Your task to perform on an android device: see tabs open on other devices in the chrome app Image 0: 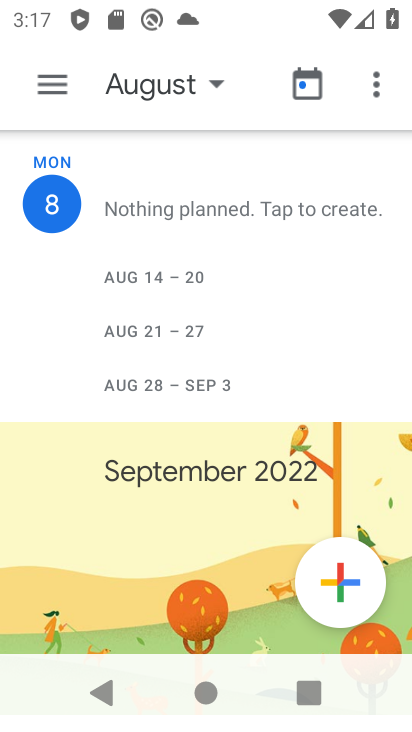
Step 0: press home button
Your task to perform on an android device: see tabs open on other devices in the chrome app Image 1: 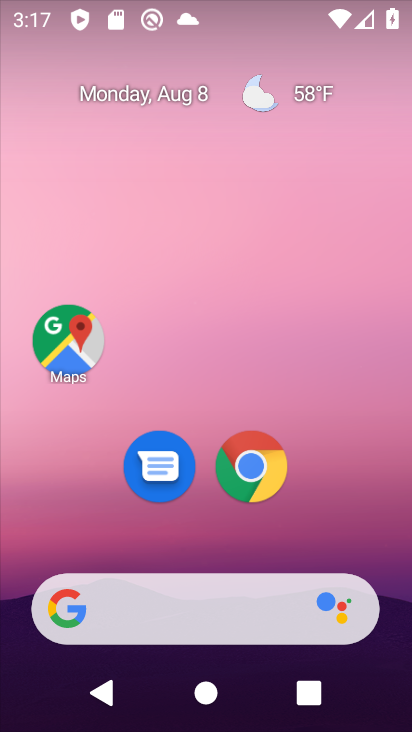
Step 1: drag from (219, 414) to (206, 247)
Your task to perform on an android device: see tabs open on other devices in the chrome app Image 2: 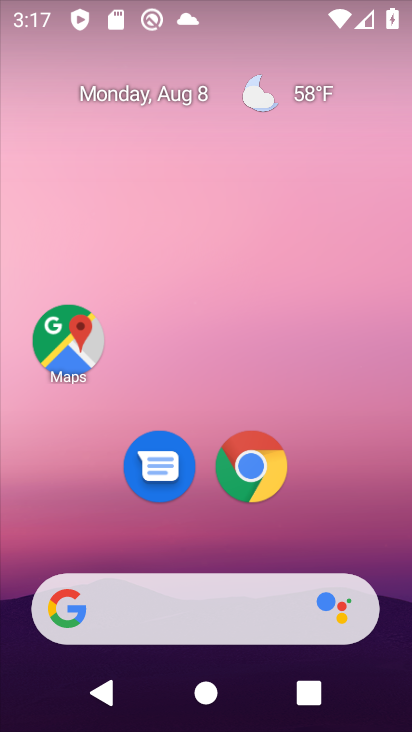
Step 2: drag from (214, 535) to (218, 203)
Your task to perform on an android device: see tabs open on other devices in the chrome app Image 3: 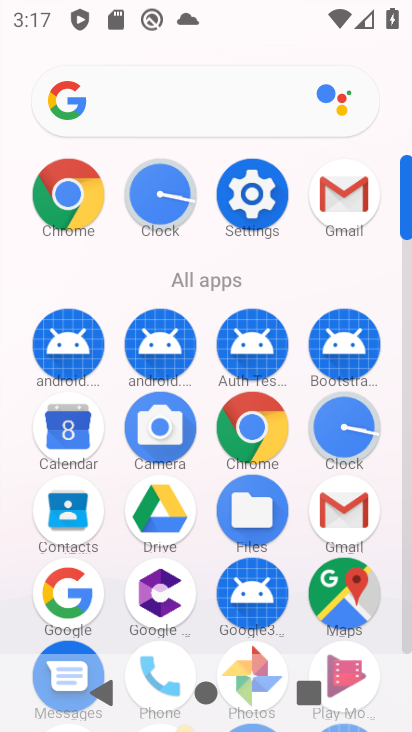
Step 3: click (250, 427)
Your task to perform on an android device: see tabs open on other devices in the chrome app Image 4: 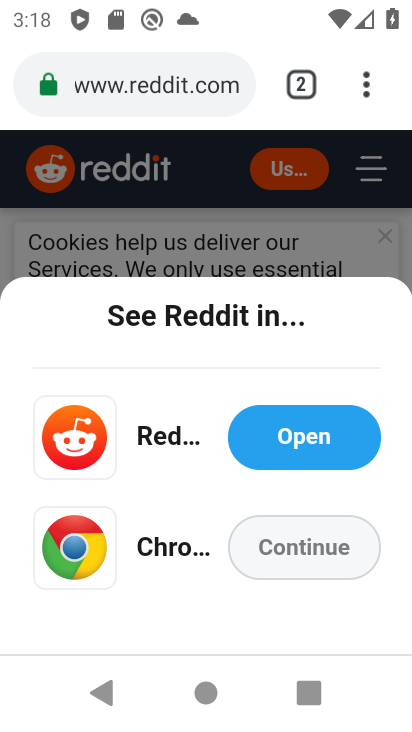
Step 4: click (367, 73)
Your task to perform on an android device: see tabs open on other devices in the chrome app Image 5: 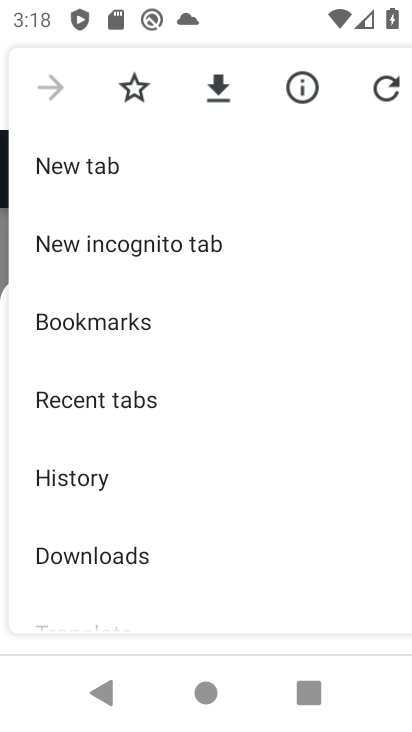
Step 5: click (121, 478)
Your task to perform on an android device: see tabs open on other devices in the chrome app Image 6: 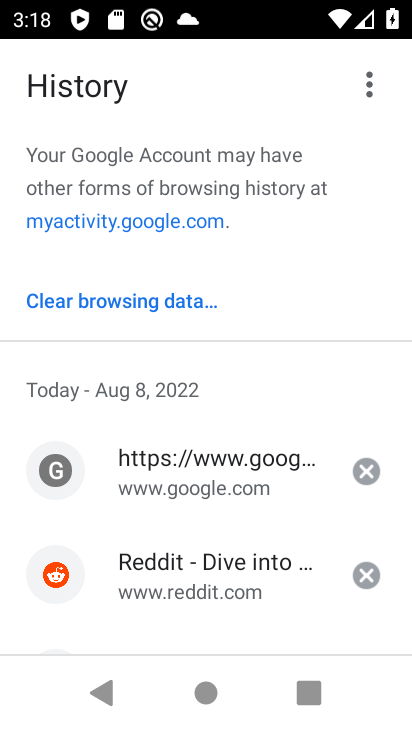
Step 6: task complete